Your task to perform on an android device: change keyboard looks Image 0: 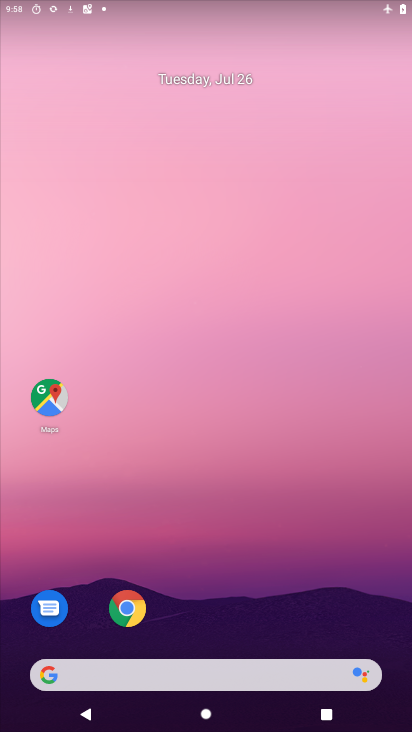
Step 0: drag from (273, 549) to (228, 79)
Your task to perform on an android device: change keyboard looks Image 1: 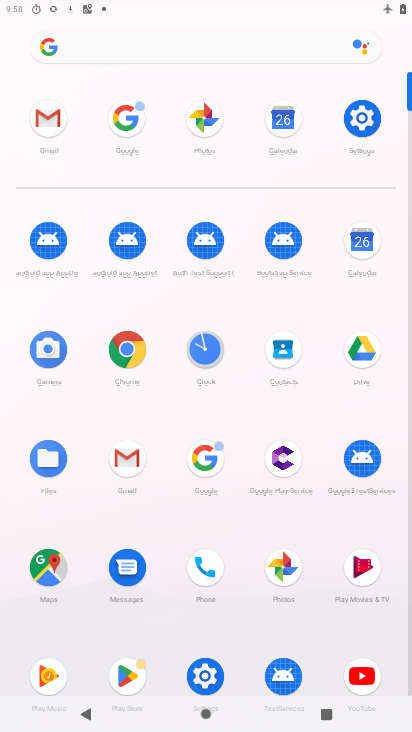
Step 1: click (354, 119)
Your task to perform on an android device: change keyboard looks Image 2: 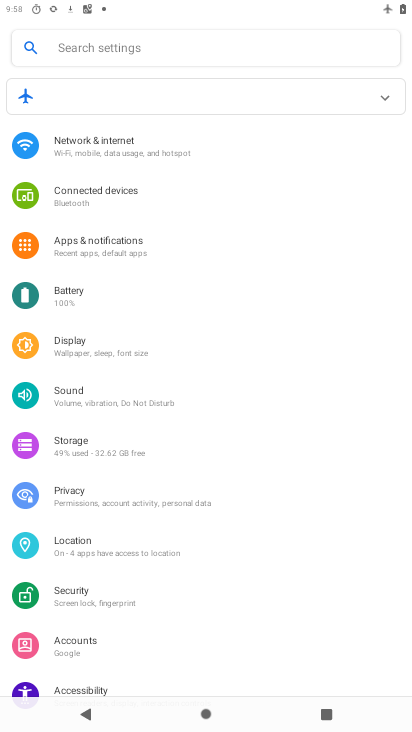
Step 2: drag from (117, 625) to (149, 152)
Your task to perform on an android device: change keyboard looks Image 3: 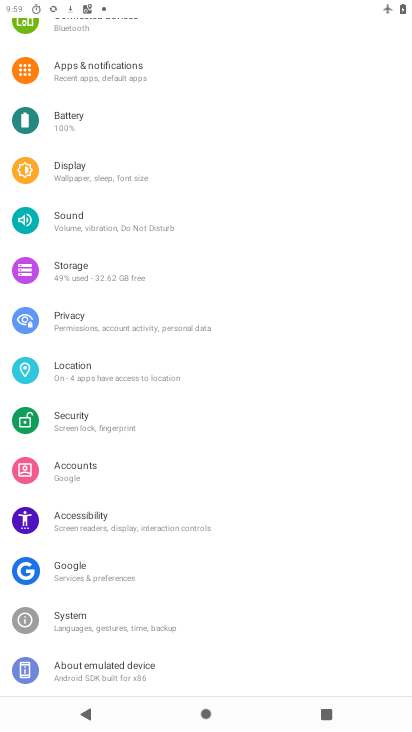
Step 3: click (121, 627)
Your task to perform on an android device: change keyboard looks Image 4: 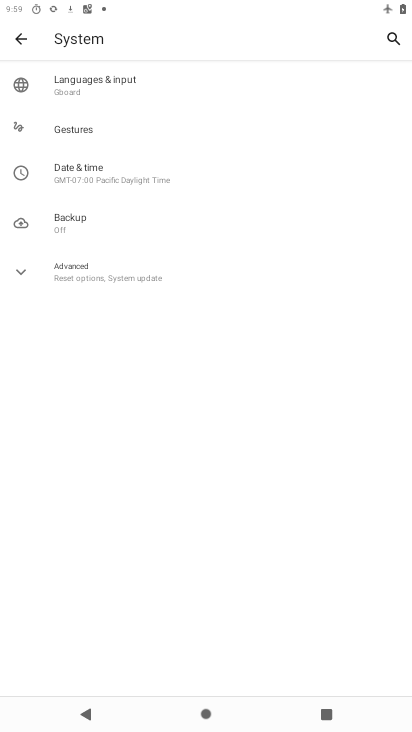
Step 4: click (111, 96)
Your task to perform on an android device: change keyboard looks Image 5: 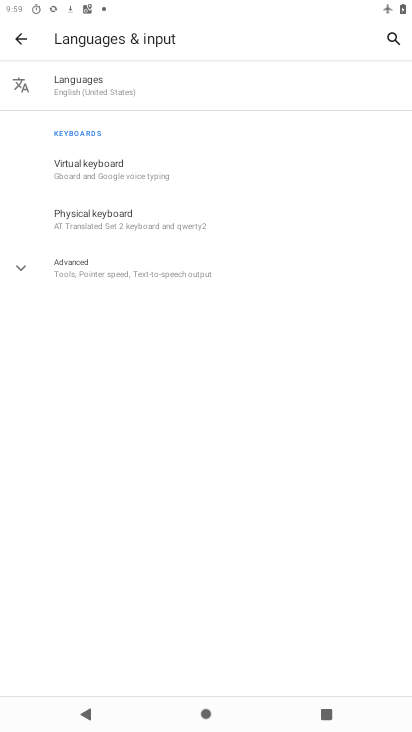
Step 5: click (150, 179)
Your task to perform on an android device: change keyboard looks Image 6: 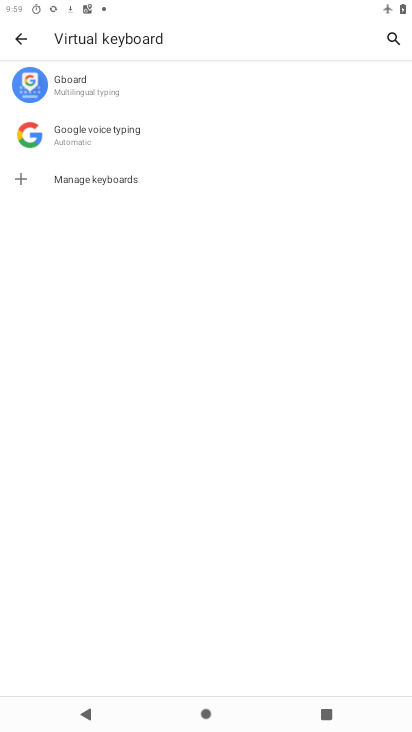
Step 6: click (87, 87)
Your task to perform on an android device: change keyboard looks Image 7: 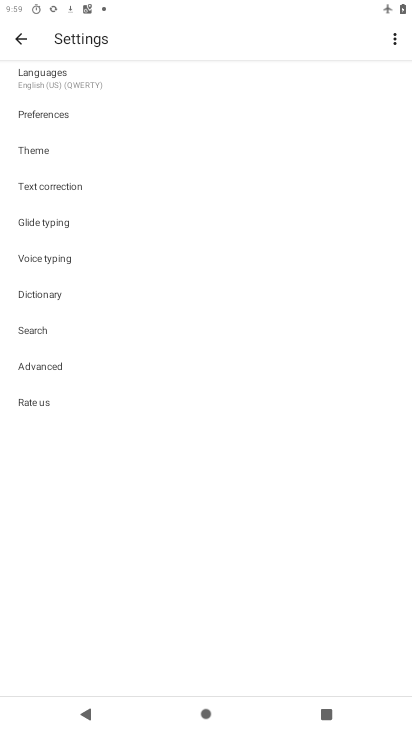
Step 7: click (89, 153)
Your task to perform on an android device: change keyboard looks Image 8: 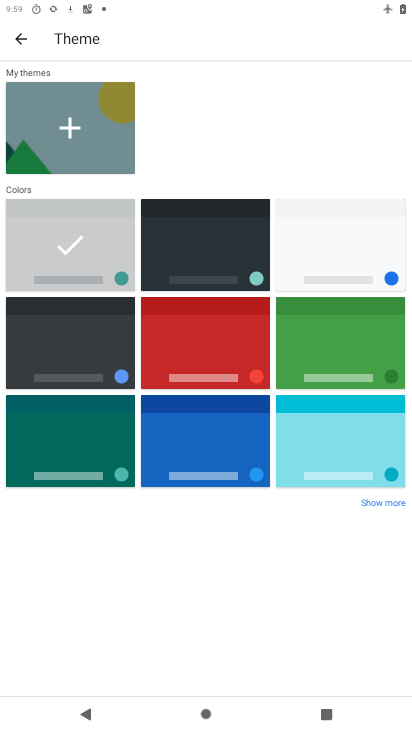
Step 8: click (331, 443)
Your task to perform on an android device: change keyboard looks Image 9: 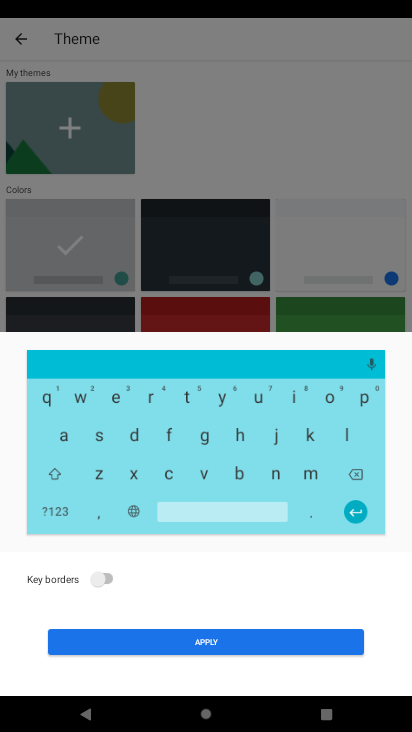
Step 9: click (200, 630)
Your task to perform on an android device: change keyboard looks Image 10: 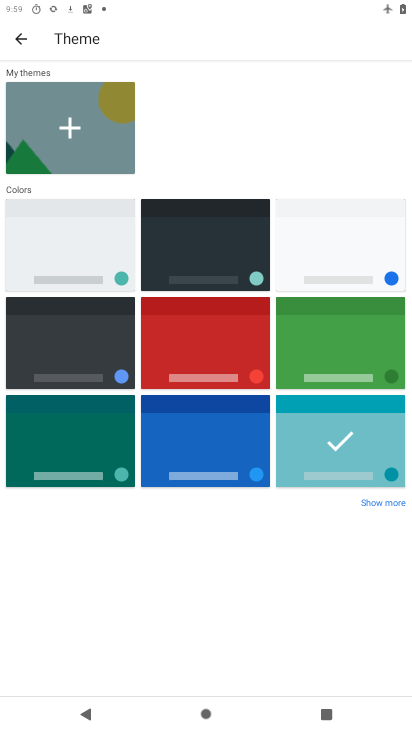
Step 10: task complete